Your task to perform on an android device: toggle show notifications on the lock screen Image 0: 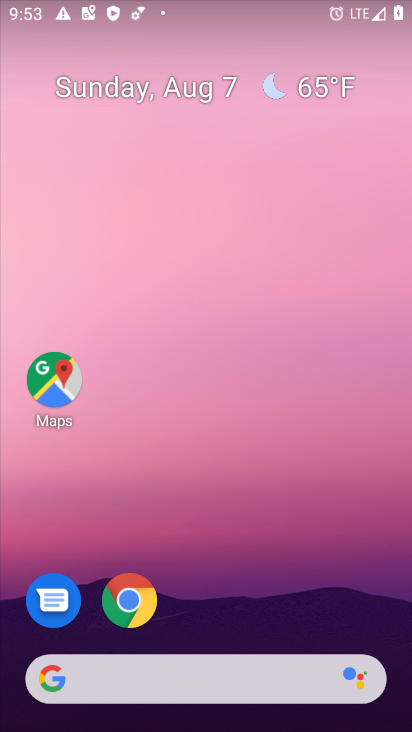
Step 0: drag from (180, 624) to (177, 145)
Your task to perform on an android device: toggle show notifications on the lock screen Image 1: 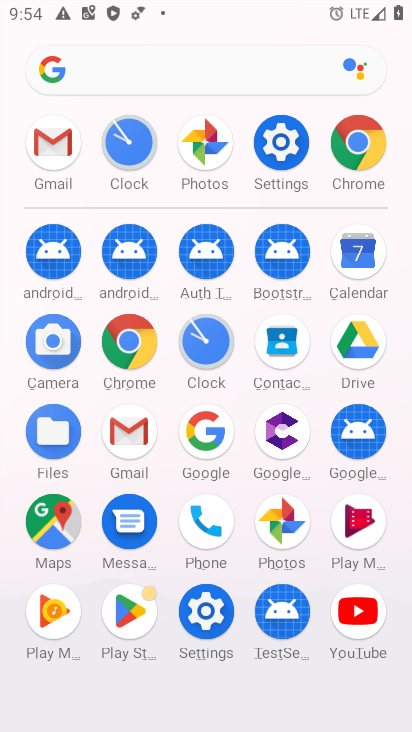
Step 1: click (211, 615)
Your task to perform on an android device: toggle show notifications on the lock screen Image 2: 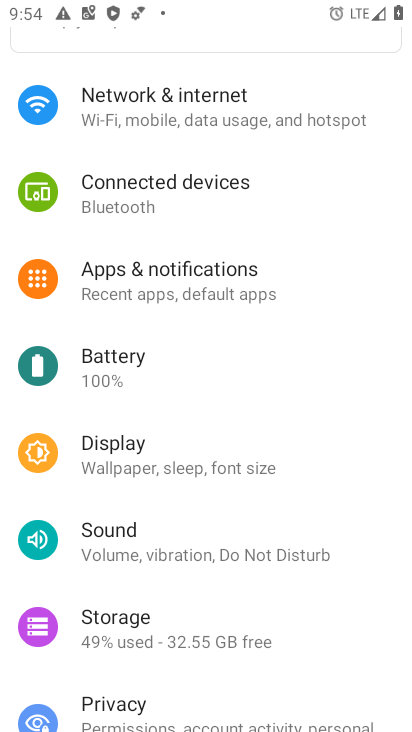
Step 2: click (139, 286)
Your task to perform on an android device: toggle show notifications on the lock screen Image 3: 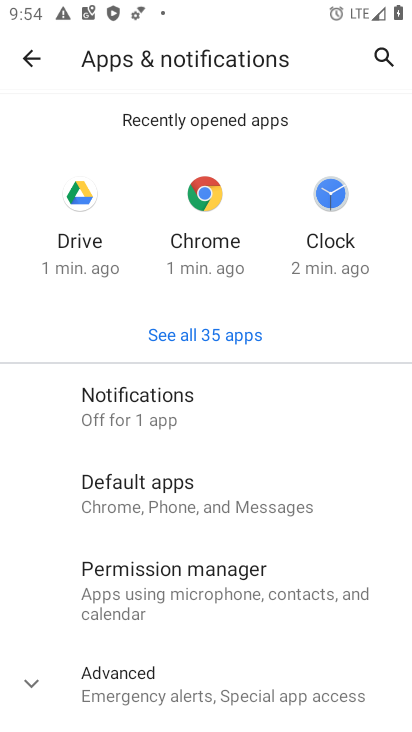
Step 3: click (161, 408)
Your task to perform on an android device: toggle show notifications on the lock screen Image 4: 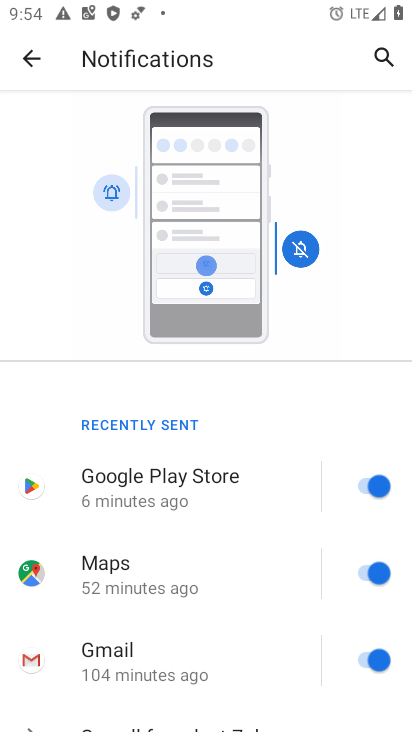
Step 4: drag from (137, 371) to (212, 105)
Your task to perform on an android device: toggle show notifications on the lock screen Image 5: 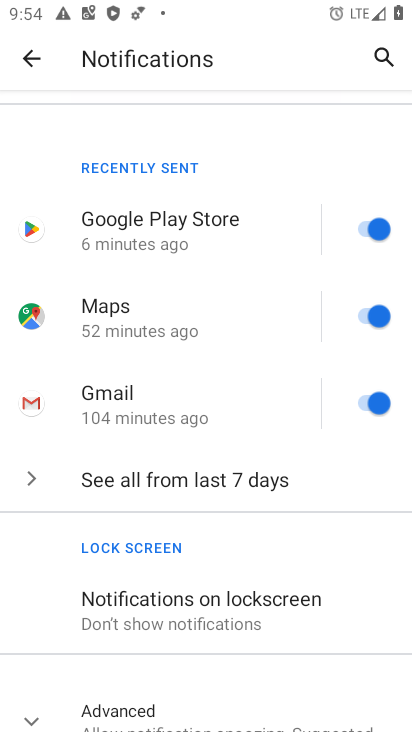
Step 5: click (171, 614)
Your task to perform on an android device: toggle show notifications on the lock screen Image 6: 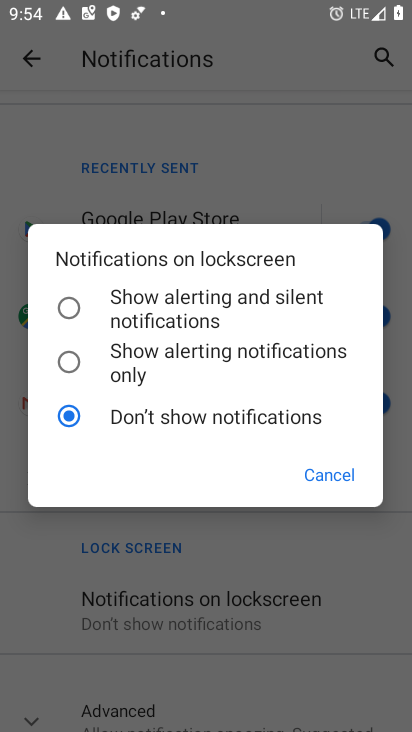
Step 6: click (66, 314)
Your task to perform on an android device: toggle show notifications on the lock screen Image 7: 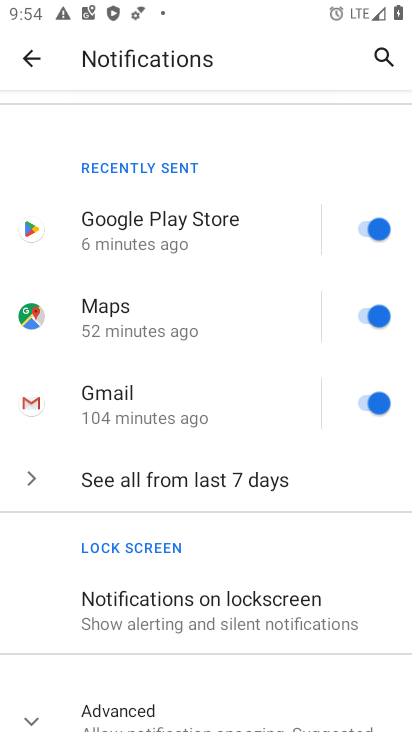
Step 7: task complete